Your task to perform on an android device: all mails in gmail Image 0: 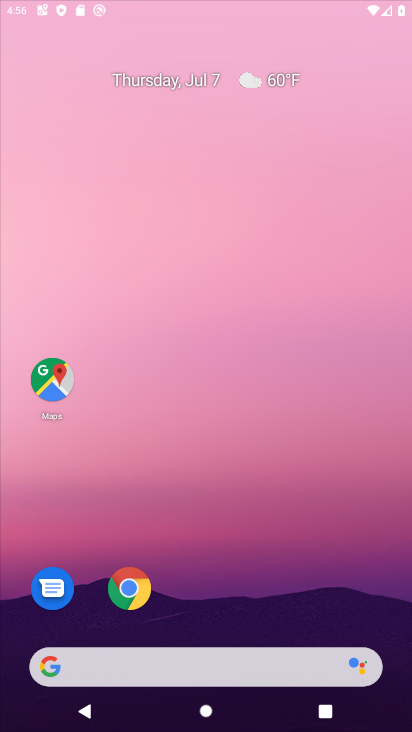
Step 0: drag from (277, 276) to (305, 0)
Your task to perform on an android device: all mails in gmail Image 1: 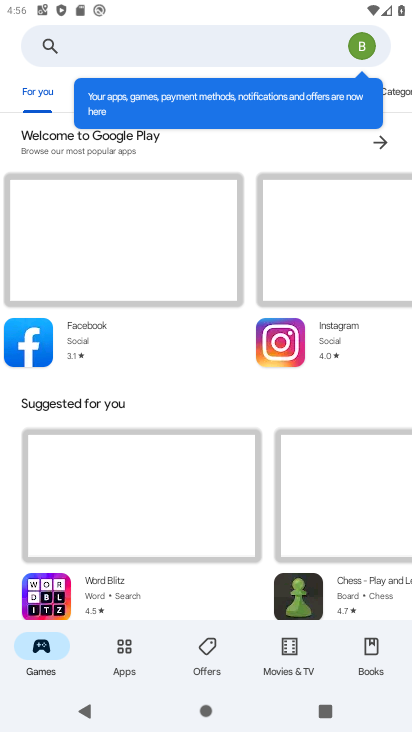
Step 1: press back button
Your task to perform on an android device: all mails in gmail Image 2: 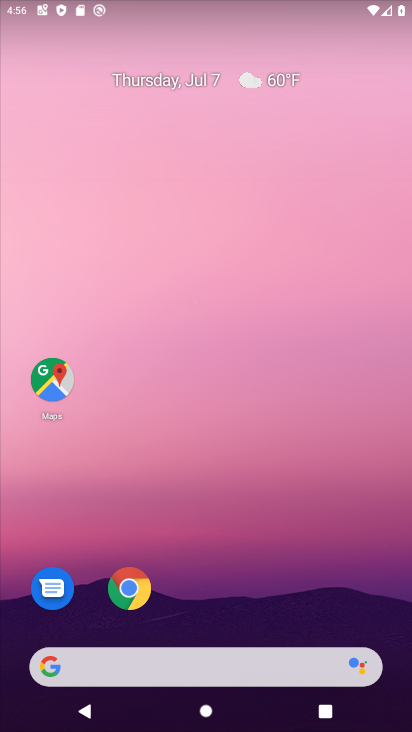
Step 2: drag from (183, 610) to (207, 41)
Your task to perform on an android device: all mails in gmail Image 3: 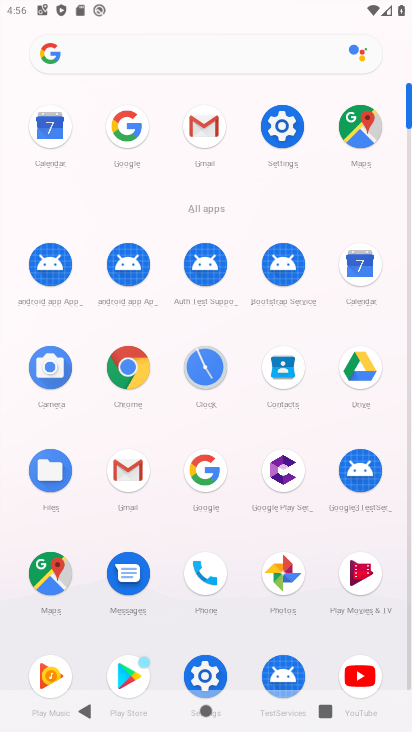
Step 3: click (195, 128)
Your task to perform on an android device: all mails in gmail Image 4: 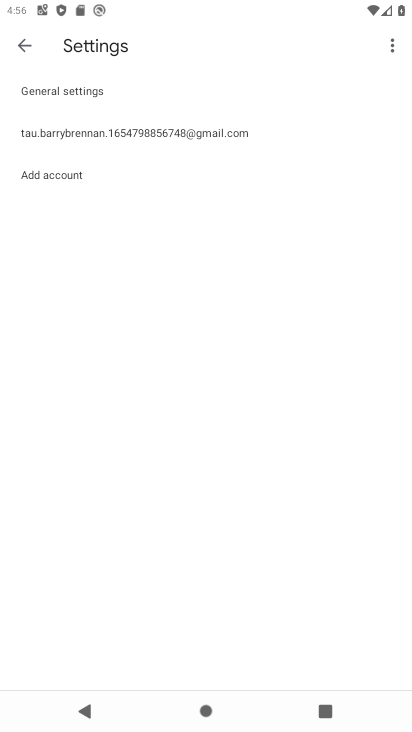
Step 4: click (0, 41)
Your task to perform on an android device: all mails in gmail Image 5: 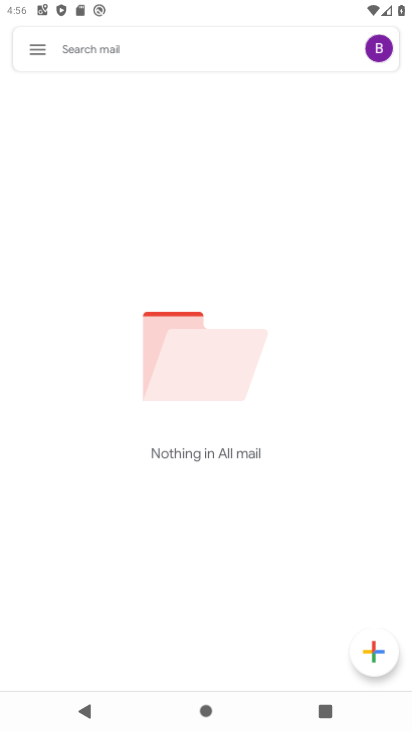
Step 5: click (17, 43)
Your task to perform on an android device: all mails in gmail Image 6: 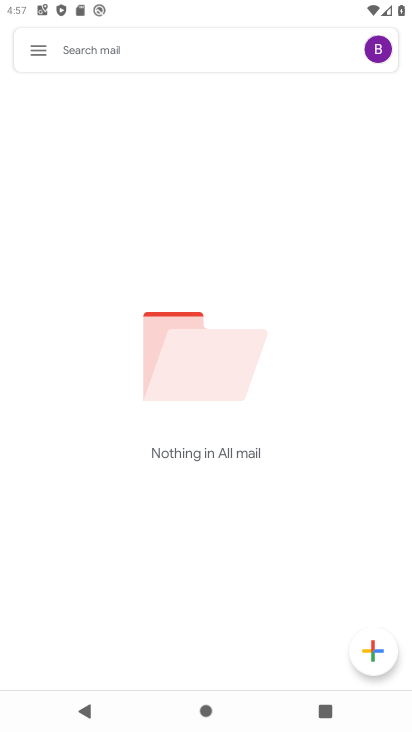
Step 6: task complete